Your task to perform on an android device: check the backup settings in the google photos Image 0: 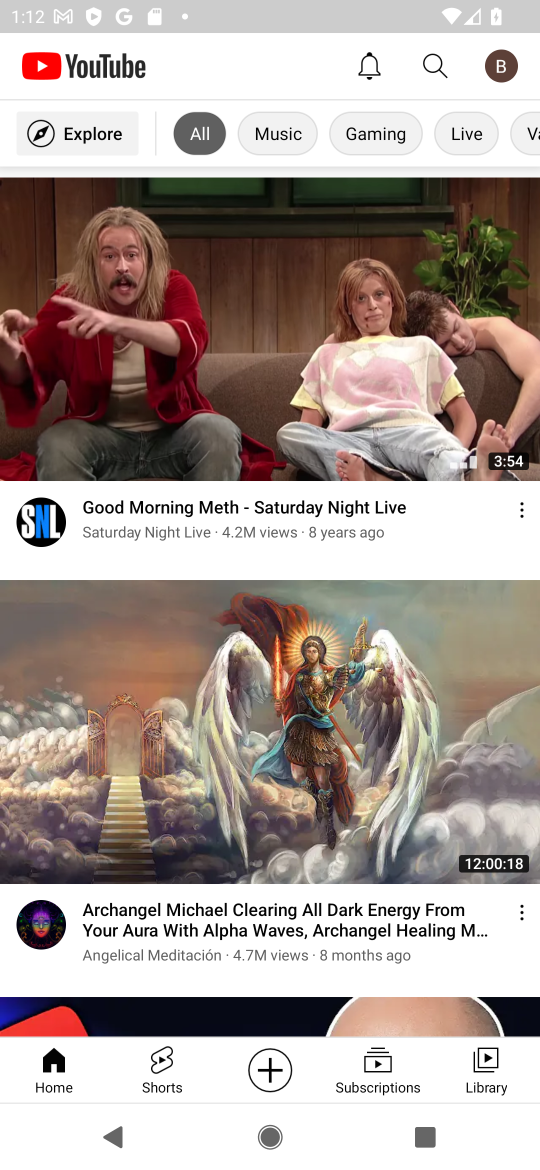
Step 0: task complete